Your task to perform on an android device: Open Google Image 0: 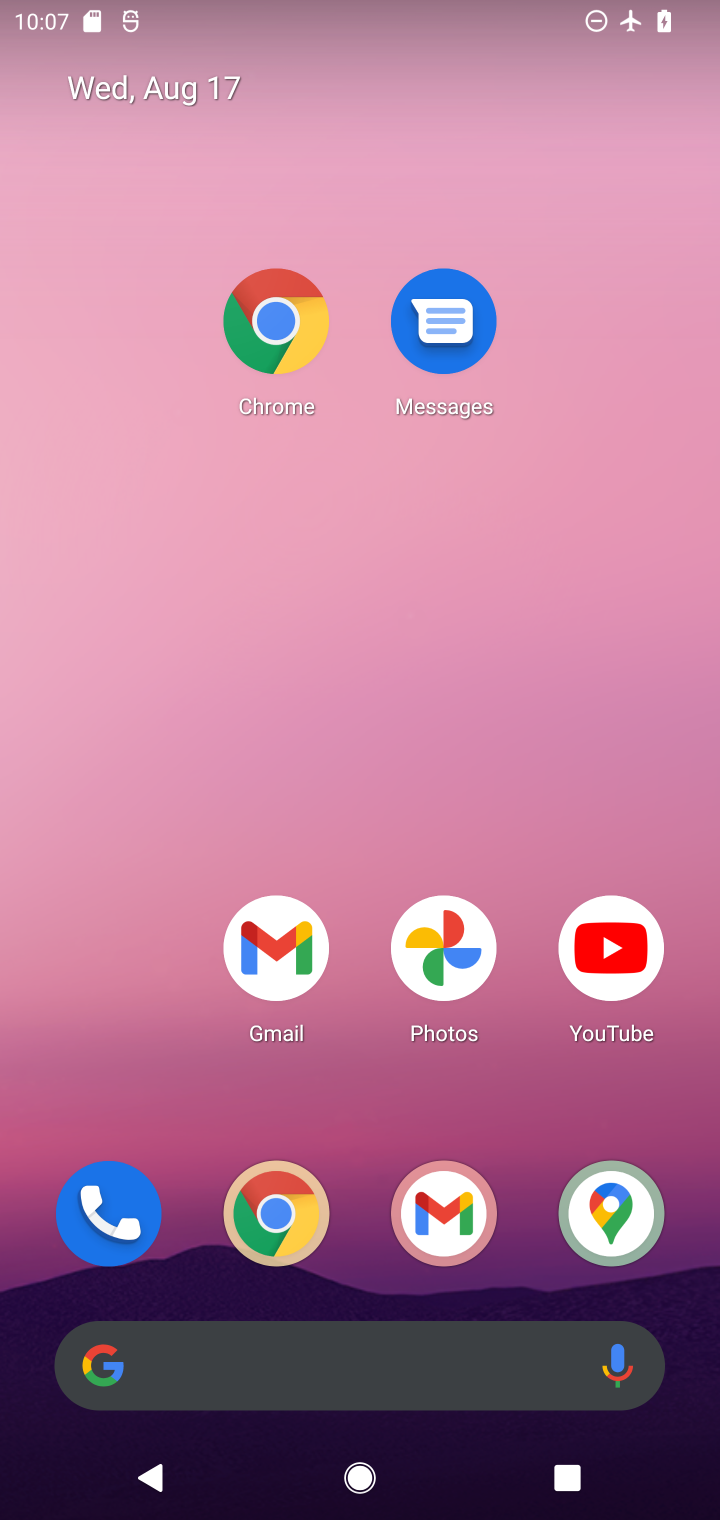
Step 0: click (304, 1239)
Your task to perform on an android device: Open Google Image 1: 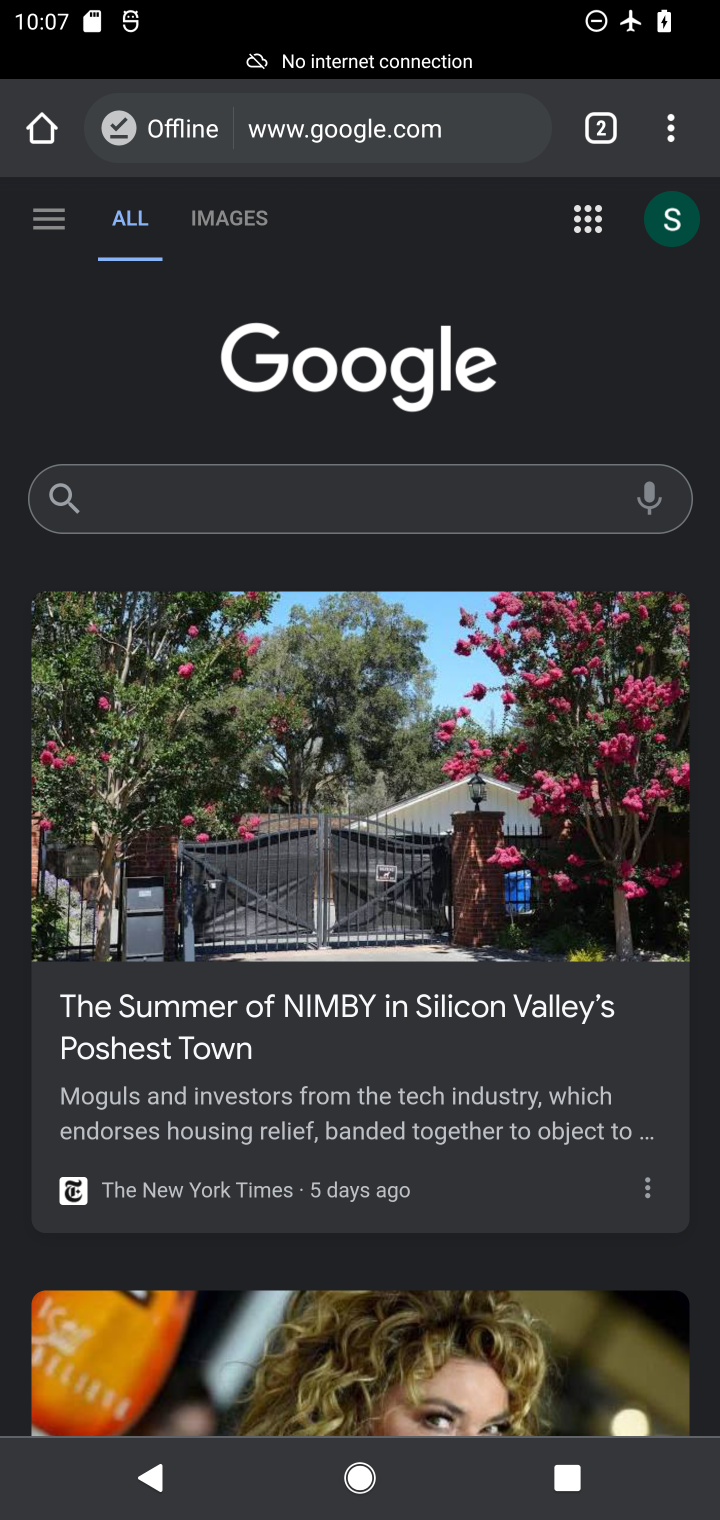
Step 1: task complete